Your task to perform on an android device: open the mobile data screen to see how much data has been used Image 0: 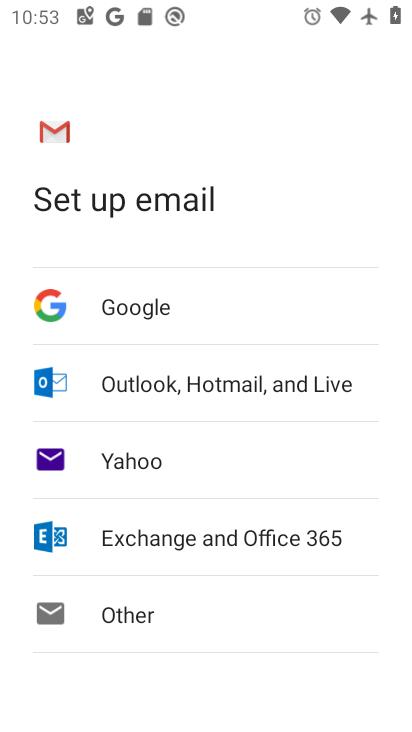
Step 0: press home button
Your task to perform on an android device: open the mobile data screen to see how much data has been used Image 1: 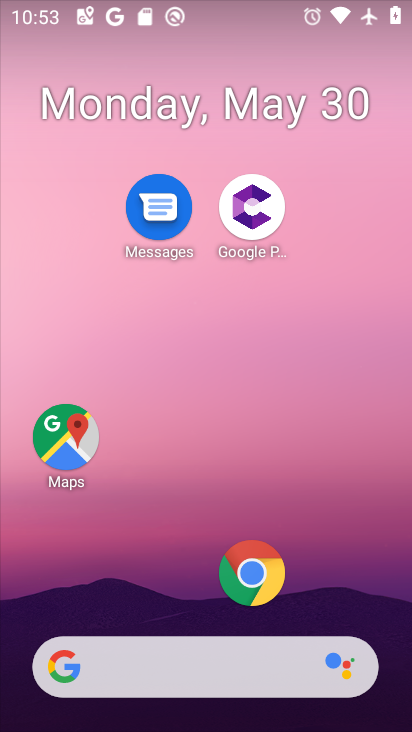
Step 1: drag from (270, 550) to (299, 225)
Your task to perform on an android device: open the mobile data screen to see how much data has been used Image 2: 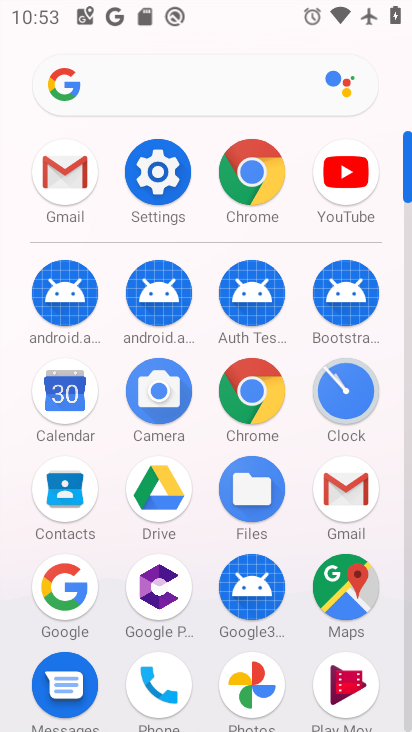
Step 2: click (148, 96)
Your task to perform on an android device: open the mobile data screen to see how much data has been used Image 3: 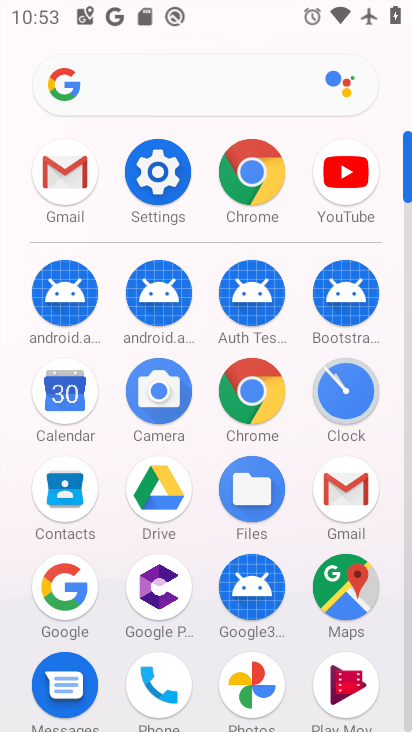
Step 3: click (148, 96)
Your task to perform on an android device: open the mobile data screen to see how much data has been used Image 4: 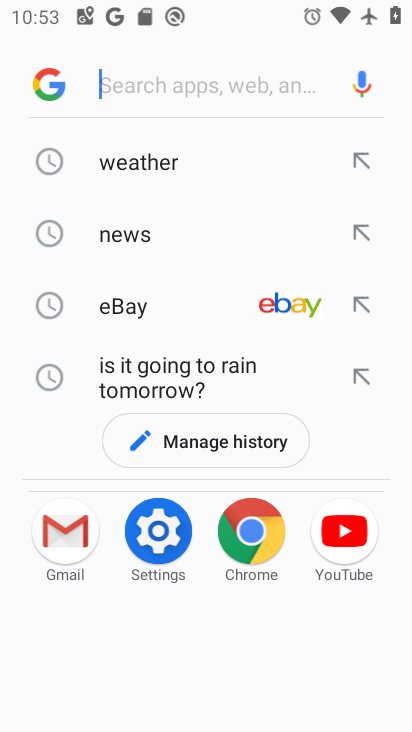
Step 4: click (161, 156)
Your task to perform on an android device: open the mobile data screen to see how much data has been used Image 5: 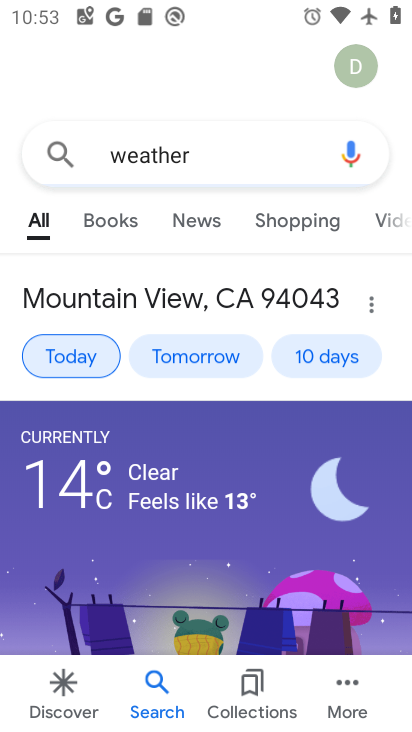
Step 5: press home button
Your task to perform on an android device: open the mobile data screen to see how much data has been used Image 6: 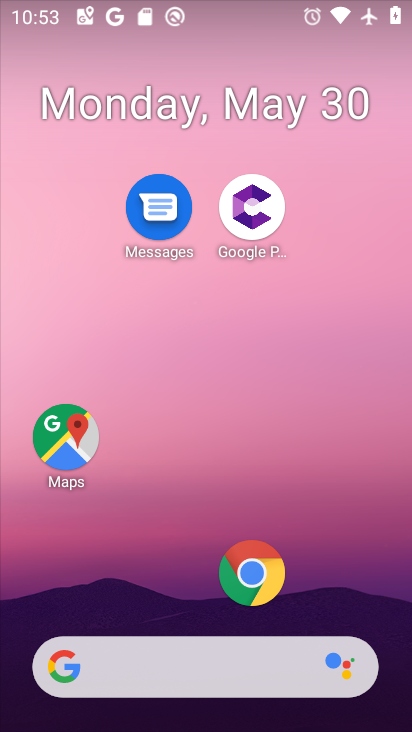
Step 6: drag from (325, 505) to (346, 165)
Your task to perform on an android device: open the mobile data screen to see how much data has been used Image 7: 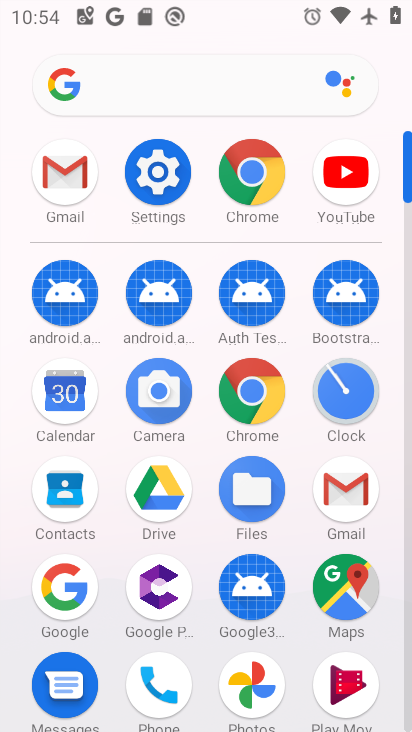
Step 7: click (148, 168)
Your task to perform on an android device: open the mobile data screen to see how much data has been used Image 8: 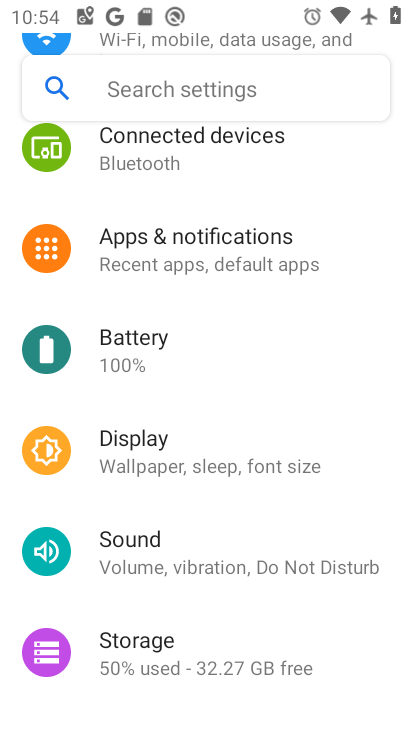
Step 8: drag from (236, 196) to (213, 421)
Your task to perform on an android device: open the mobile data screen to see how much data has been used Image 9: 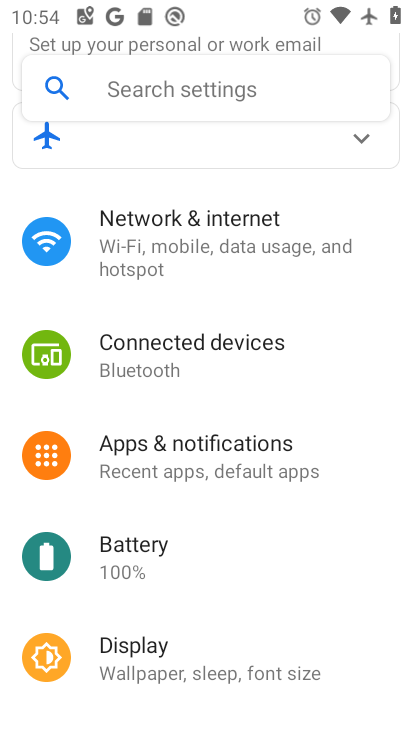
Step 9: click (220, 252)
Your task to perform on an android device: open the mobile data screen to see how much data has been used Image 10: 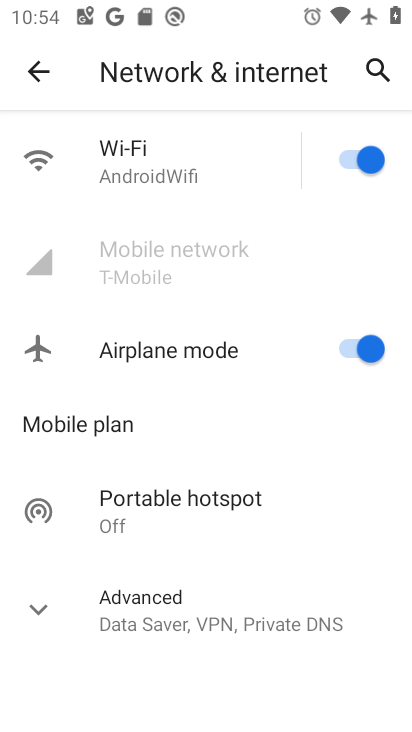
Step 10: click (221, 258)
Your task to perform on an android device: open the mobile data screen to see how much data has been used Image 11: 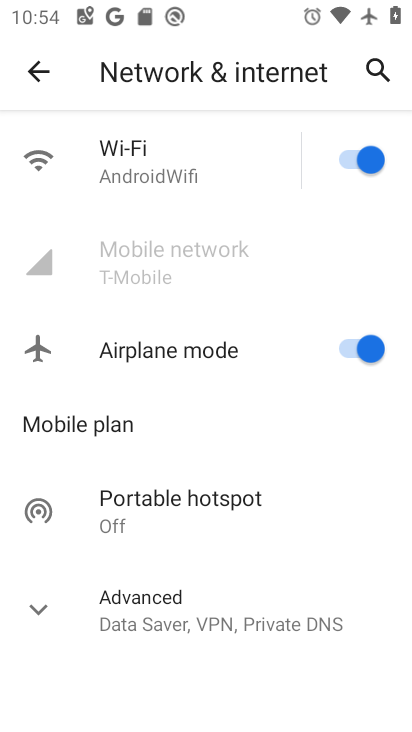
Step 11: task complete